Your task to perform on an android device: Search for vegetarian restaurants on Maps Image 0: 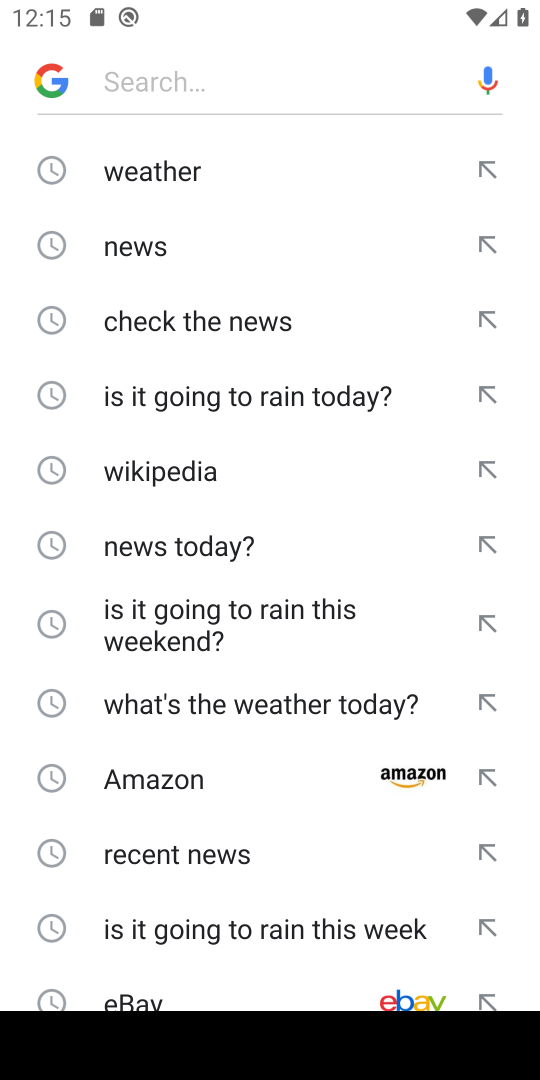
Step 0: press home button
Your task to perform on an android device: Search for vegetarian restaurants on Maps Image 1: 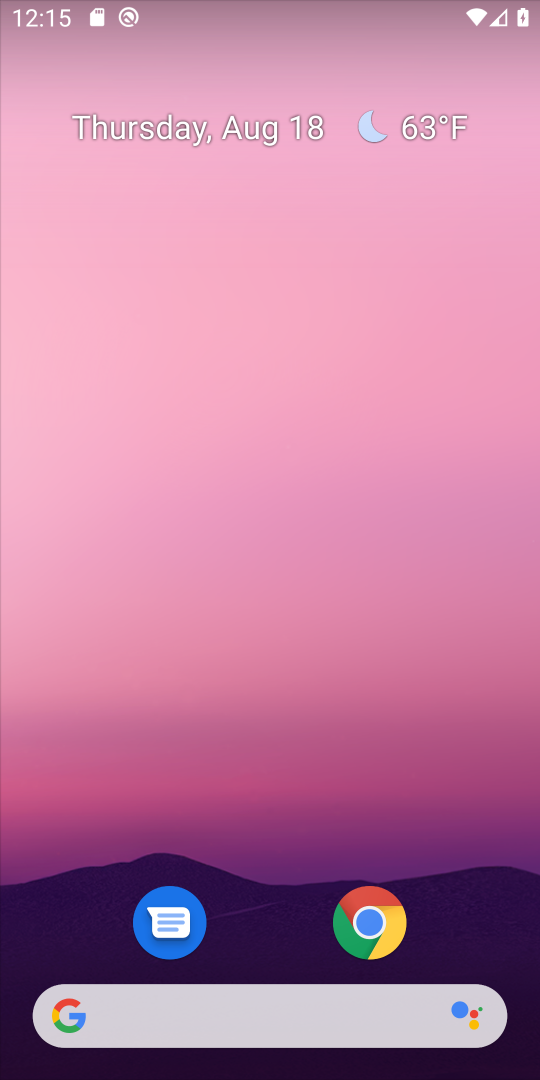
Step 1: drag from (274, 828) to (159, 68)
Your task to perform on an android device: Search for vegetarian restaurants on Maps Image 2: 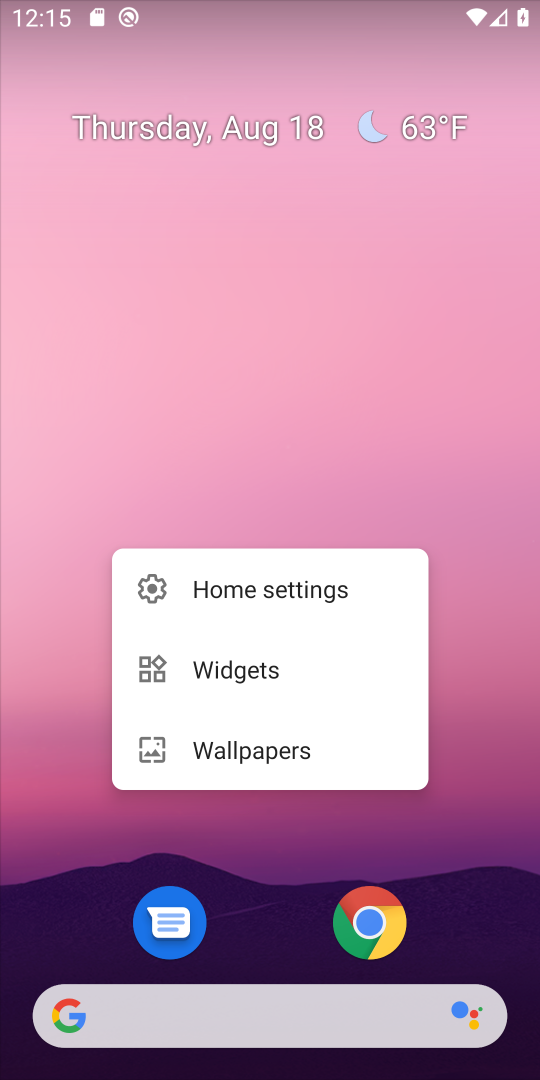
Step 2: click (463, 743)
Your task to perform on an android device: Search for vegetarian restaurants on Maps Image 3: 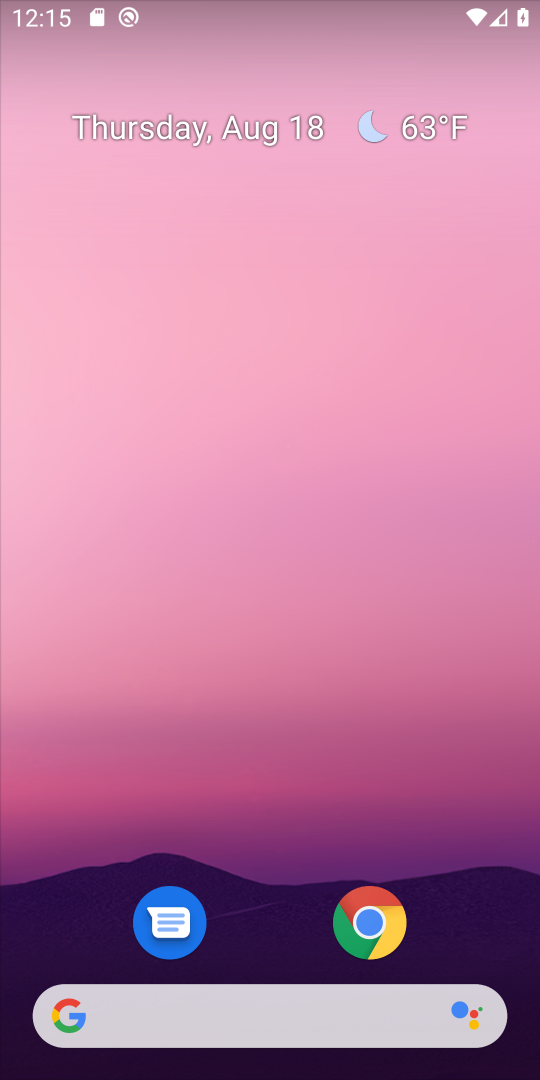
Step 3: click (300, 923)
Your task to perform on an android device: Search for vegetarian restaurants on Maps Image 4: 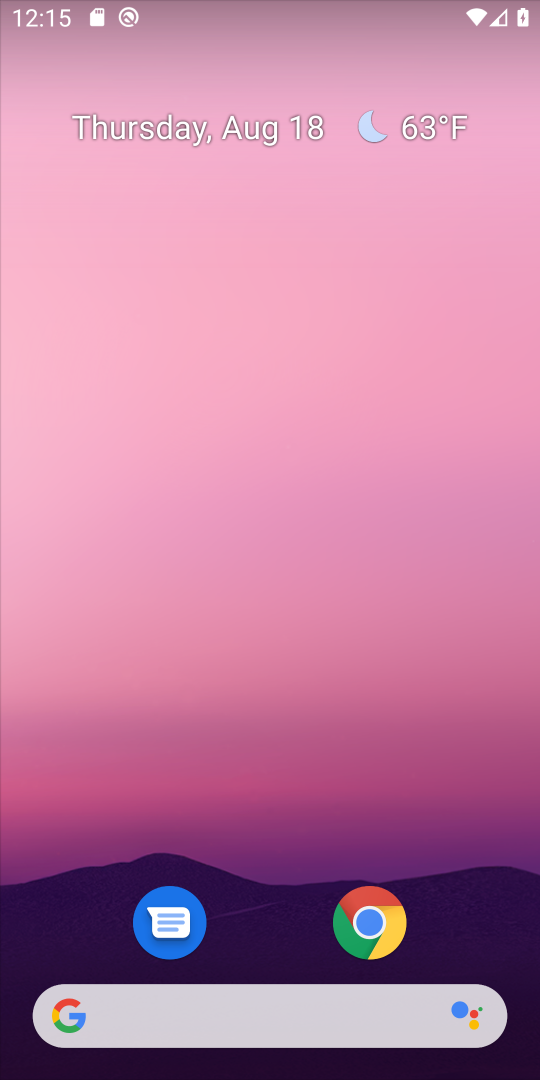
Step 4: drag from (300, 923) to (181, 54)
Your task to perform on an android device: Search for vegetarian restaurants on Maps Image 5: 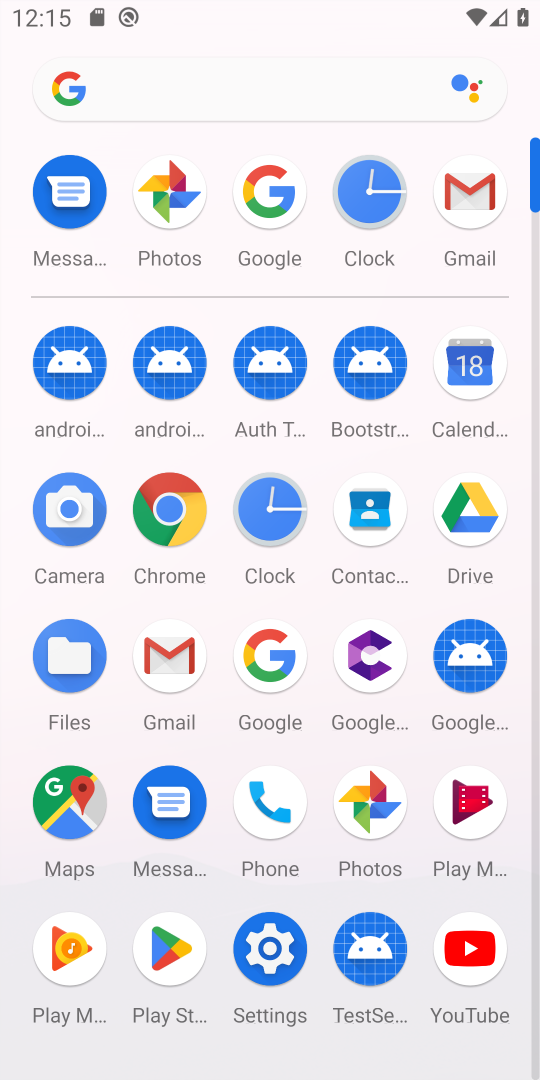
Step 5: click (55, 812)
Your task to perform on an android device: Search for vegetarian restaurants on Maps Image 6: 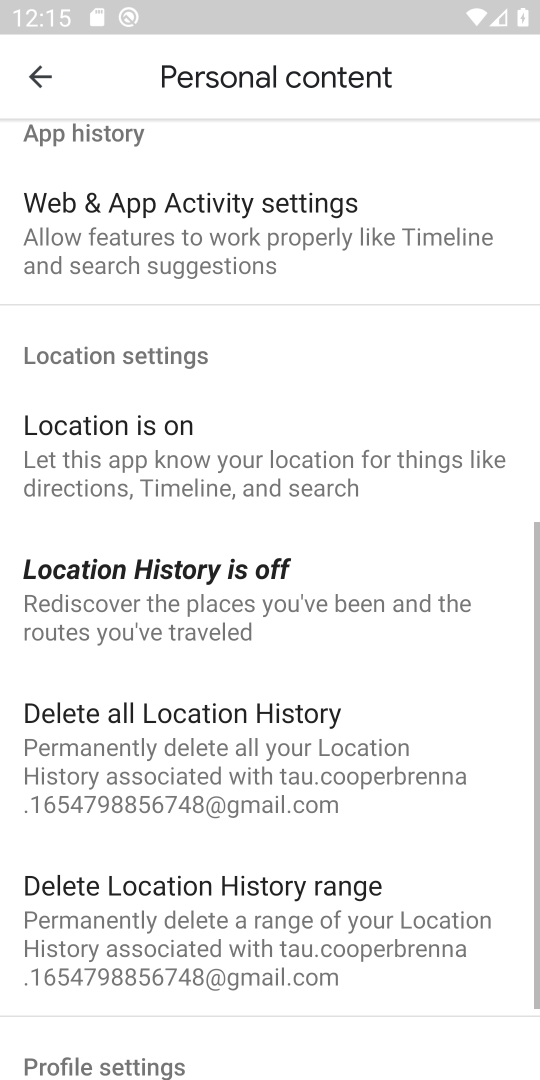
Step 6: click (49, 76)
Your task to perform on an android device: Search for vegetarian restaurants on Maps Image 7: 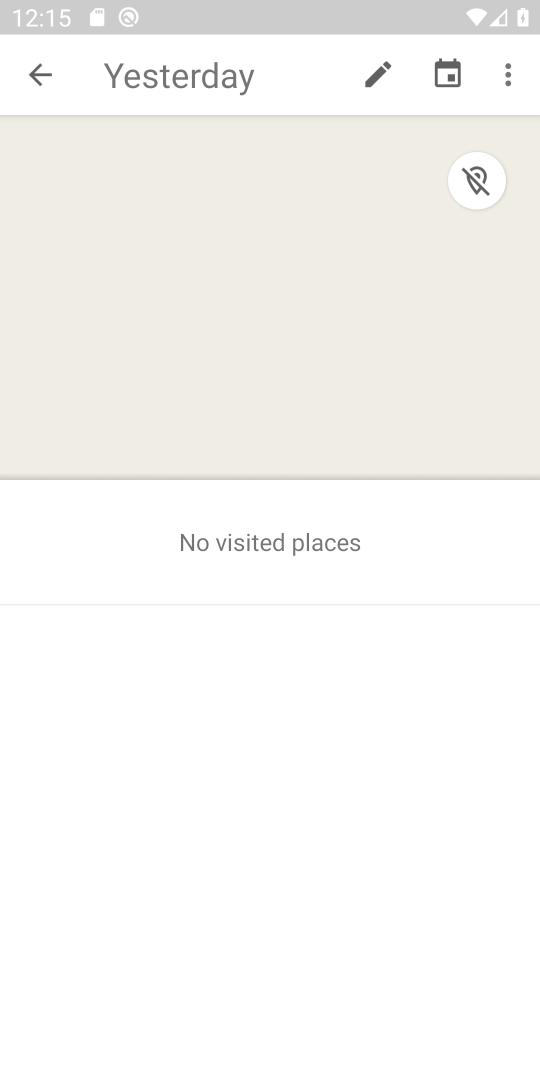
Step 7: click (49, 76)
Your task to perform on an android device: Search for vegetarian restaurants on Maps Image 8: 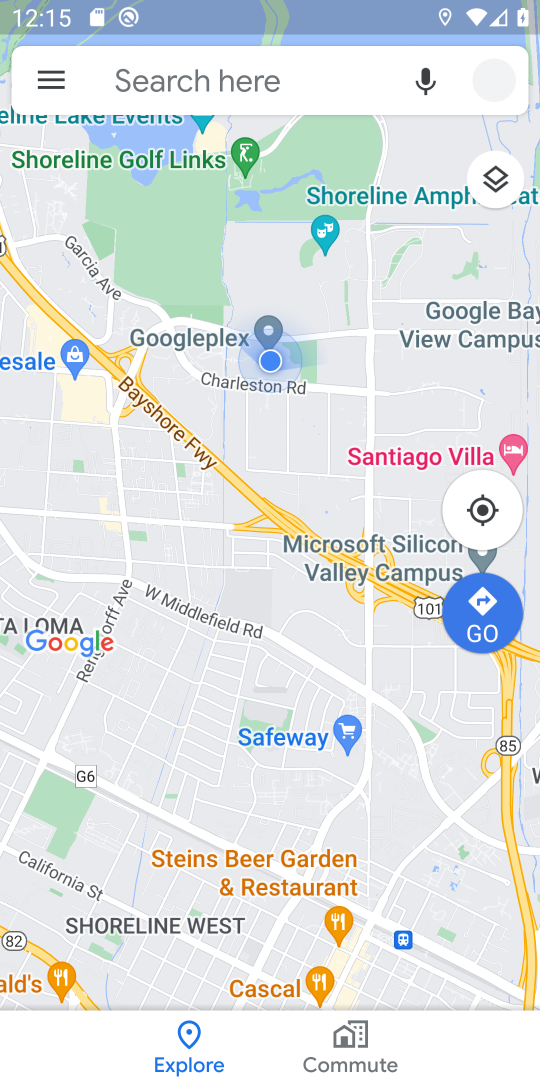
Step 8: click (131, 76)
Your task to perform on an android device: Search for vegetarian restaurants on Maps Image 9: 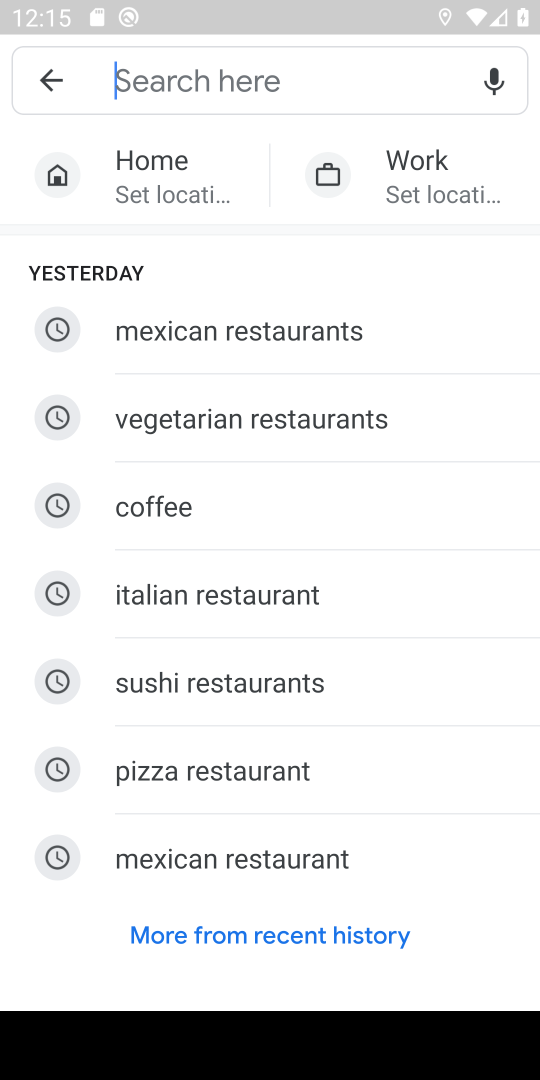
Step 9: click (211, 424)
Your task to perform on an android device: Search for vegetarian restaurants on Maps Image 10: 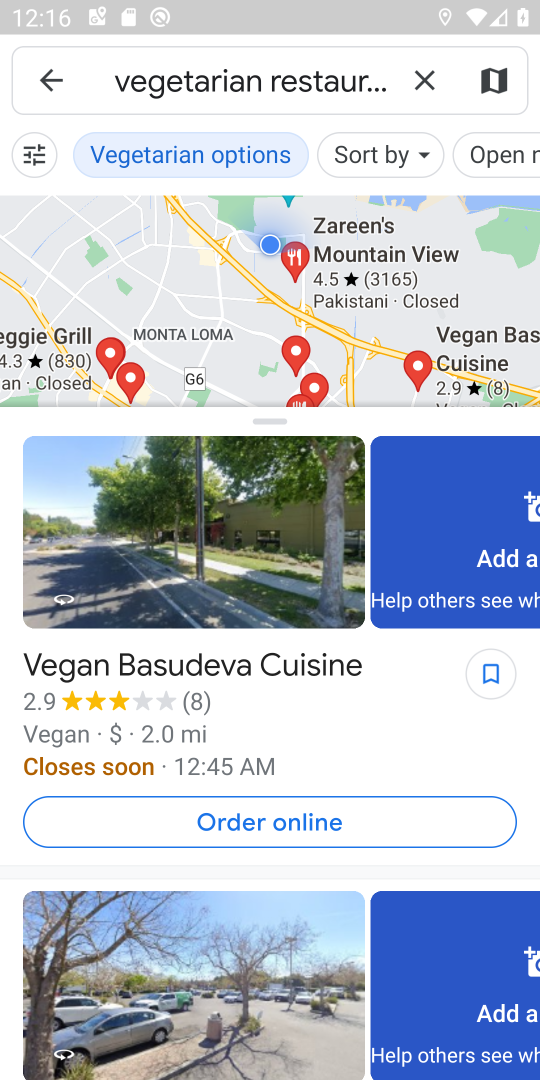
Step 10: task complete